Your task to perform on an android device: Go to ESPN.com Image 0: 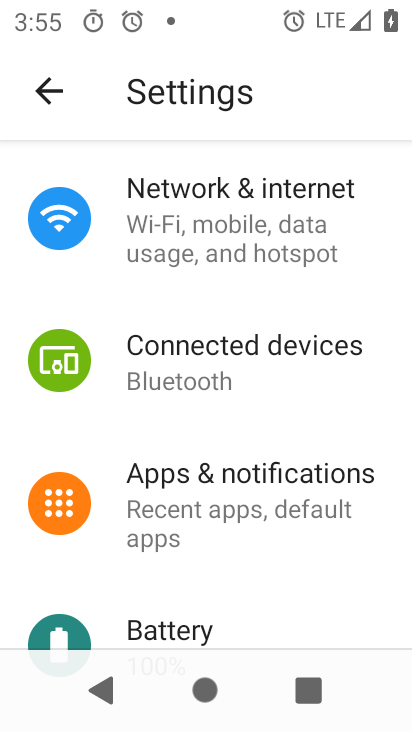
Step 0: press home button
Your task to perform on an android device: Go to ESPN.com Image 1: 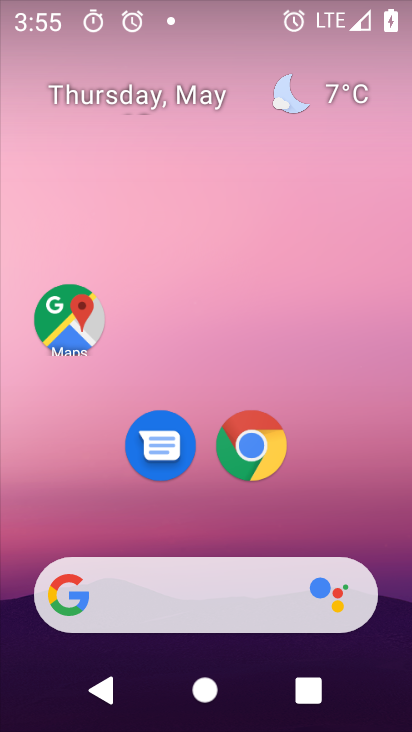
Step 1: click (262, 452)
Your task to perform on an android device: Go to ESPN.com Image 2: 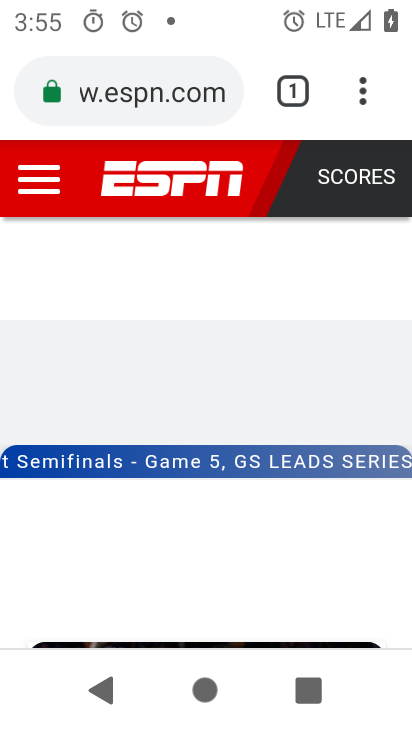
Step 2: task complete